Your task to perform on an android device: Search for a 24-inch cordless drill. Image 0: 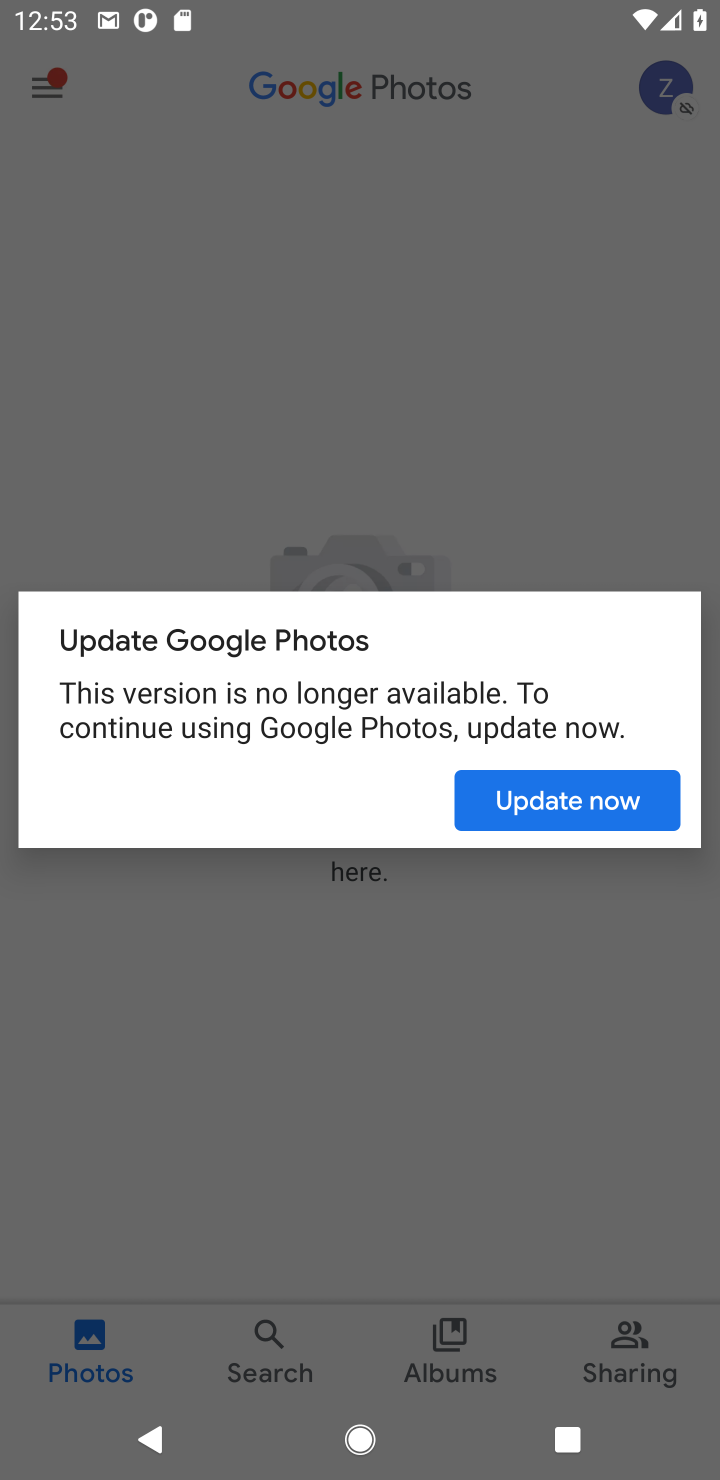
Step 0: click (577, 806)
Your task to perform on an android device: Search for a 24-inch cordless drill. Image 1: 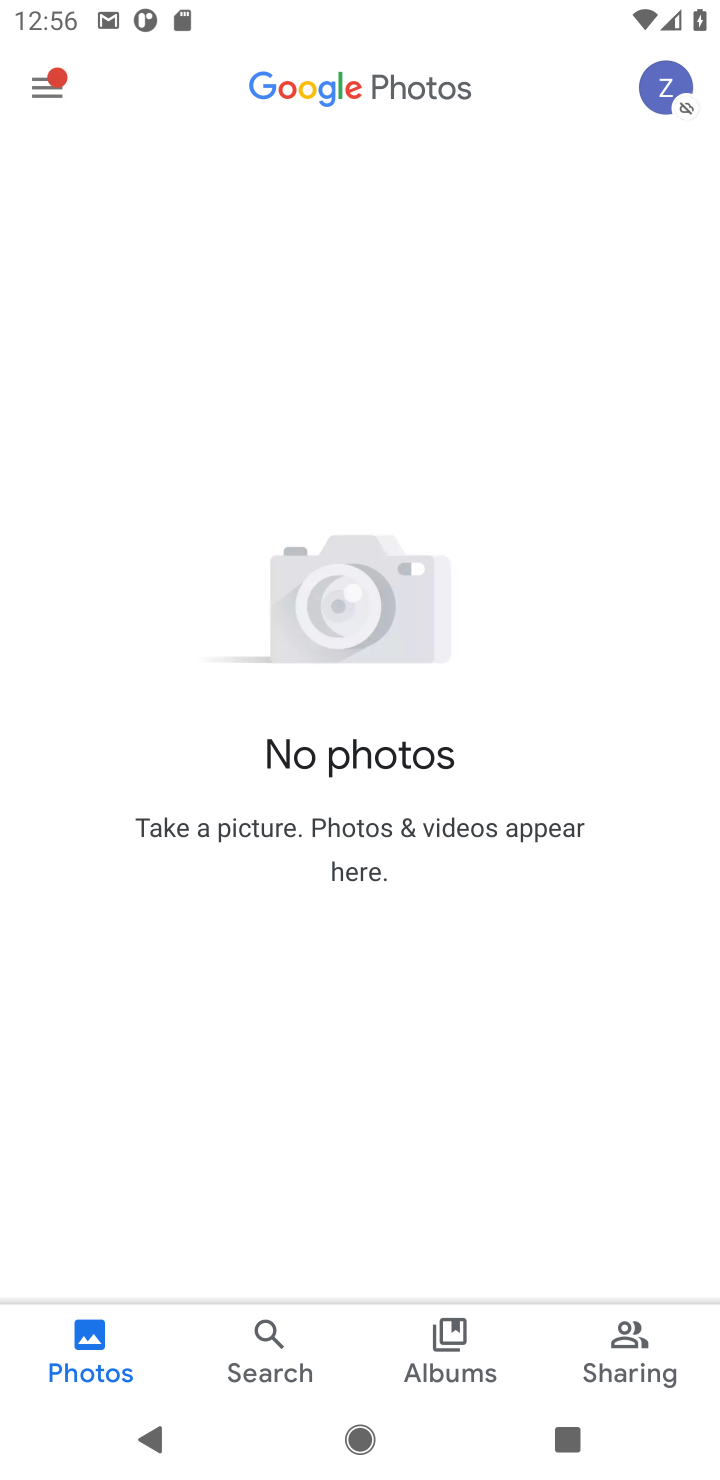
Step 1: task complete